Your task to perform on an android device: Go to Google maps Image 0: 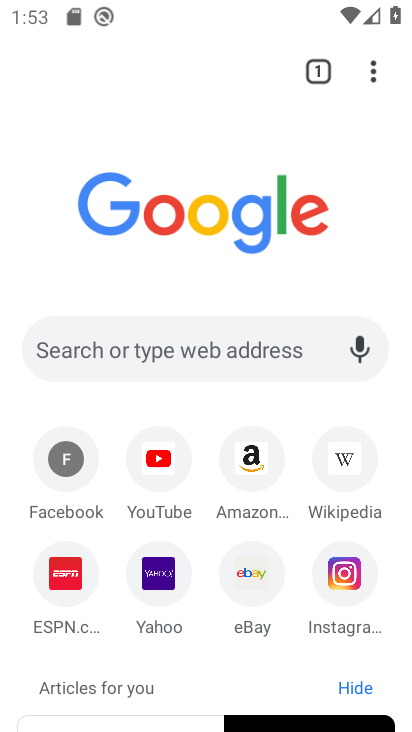
Step 0: press home button
Your task to perform on an android device: Go to Google maps Image 1: 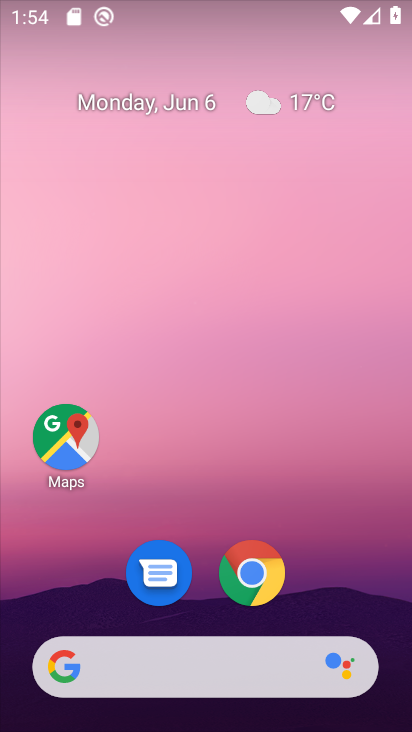
Step 1: drag from (406, 633) to (193, 80)
Your task to perform on an android device: Go to Google maps Image 2: 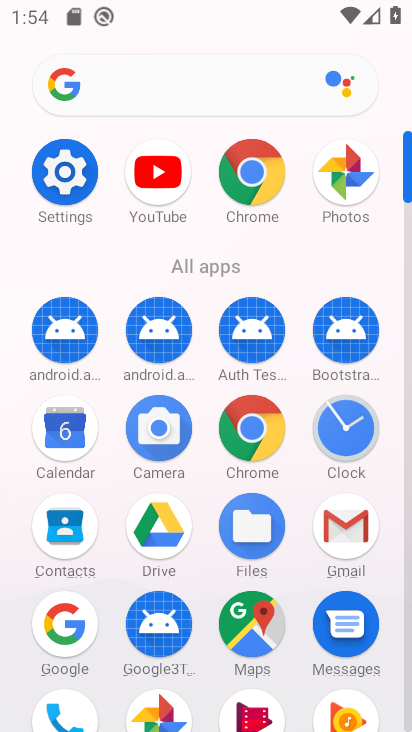
Step 2: click (271, 612)
Your task to perform on an android device: Go to Google maps Image 3: 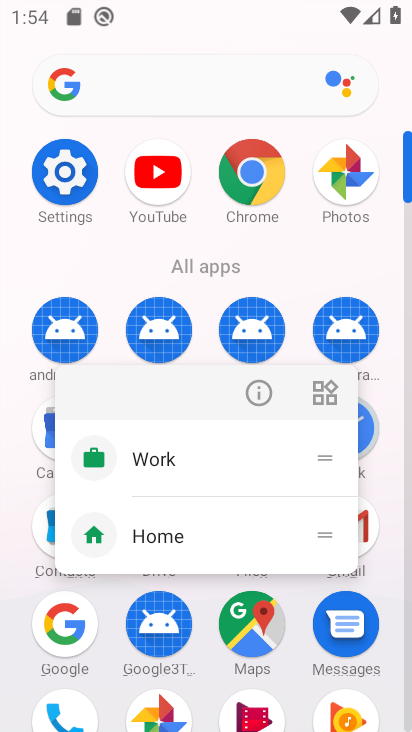
Step 3: click (255, 629)
Your task to perform on an android device: Go to Google maps Image 4: 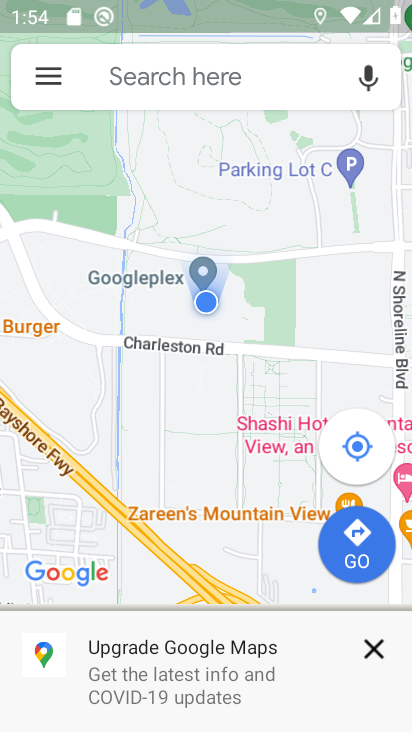
Step 4: task complete